Your task to perform on an android device: Open Amazon Image 0: 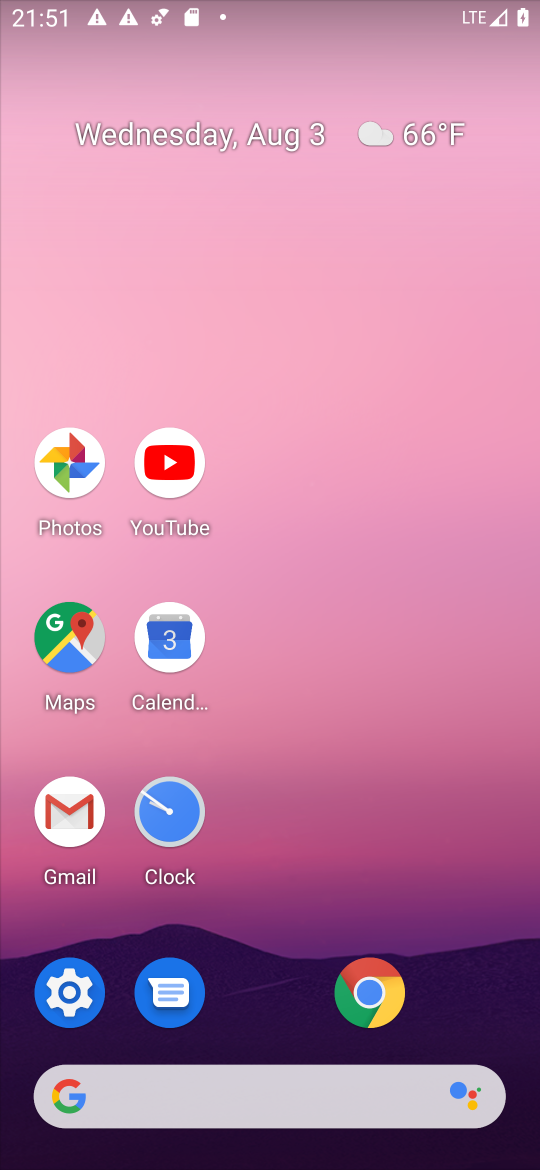
Step 0: click (362, 995)
Your task to perform on an android device: Open Amazon Image 1: 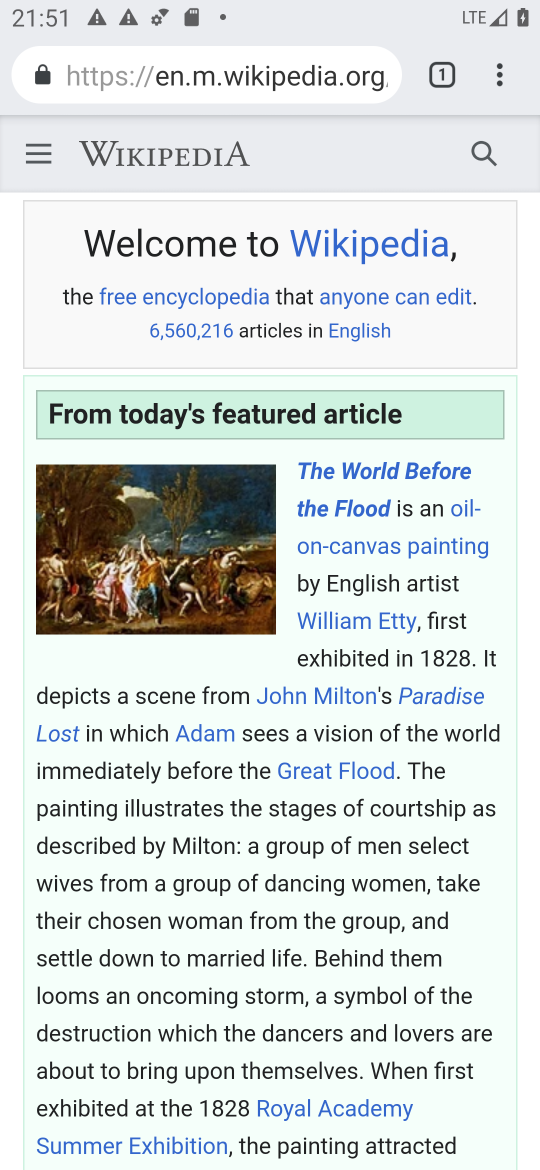
Step 1: click (498, 76)
Your task to perform on an android device: Open Amazon Image 2: 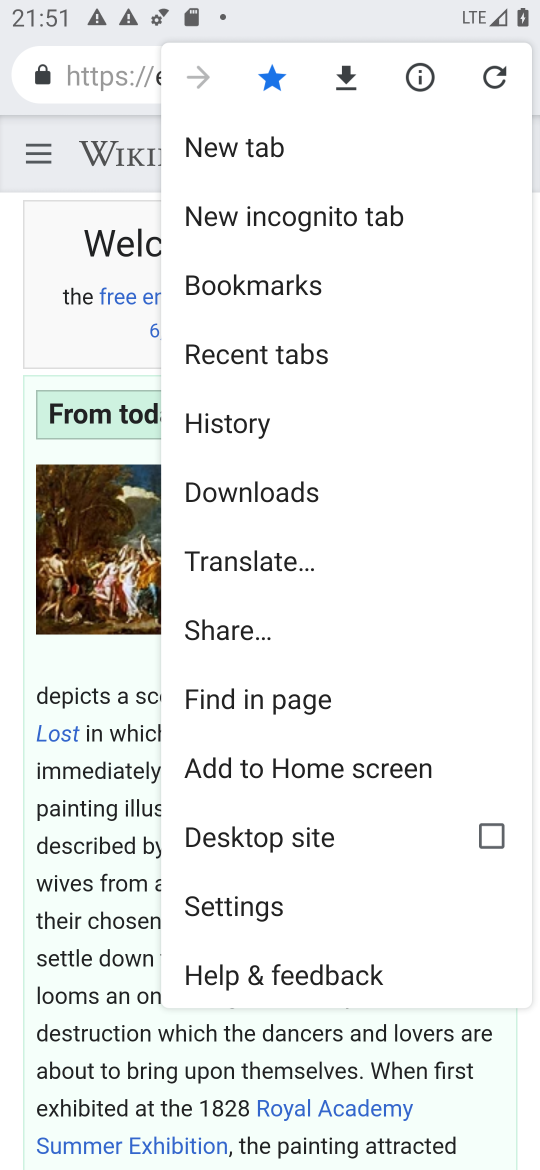
Step 2: click (261, 152)
Your task to perform on an android device: Open Amazon Image 3: 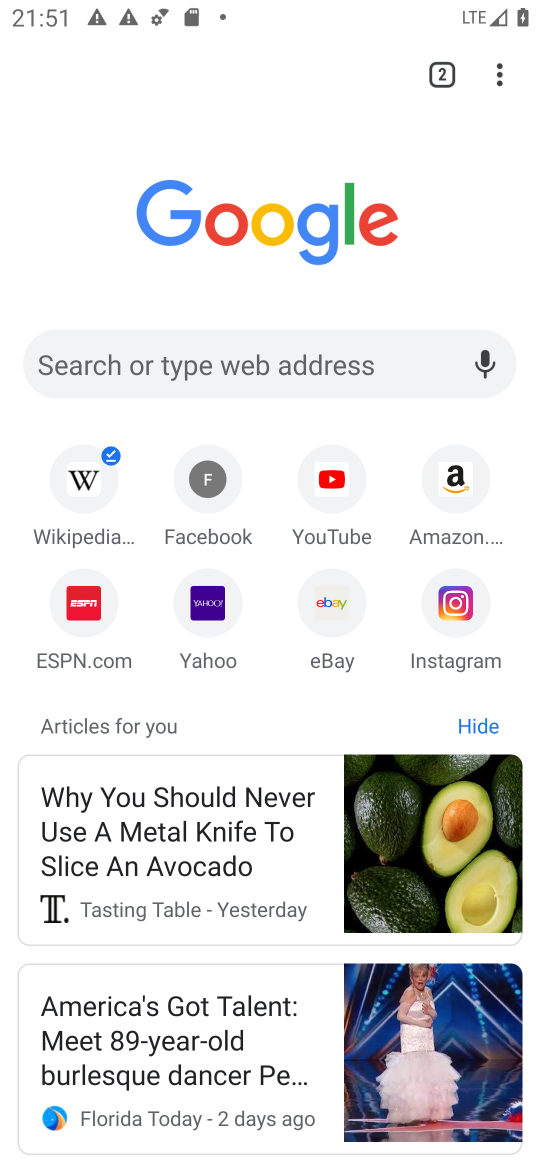
Step 3: click (442, 477)
Your task to perform on an android device: Open Amazon Image 4: 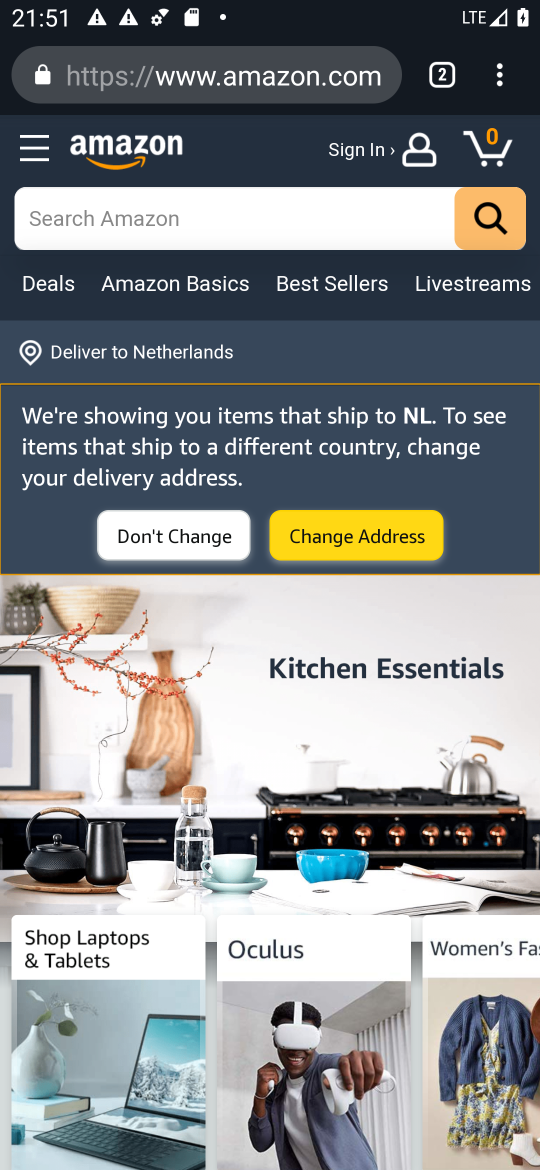
Step 4: task complete